Your task to perform on an android device: see sites visited before in the chrome app Image 0: 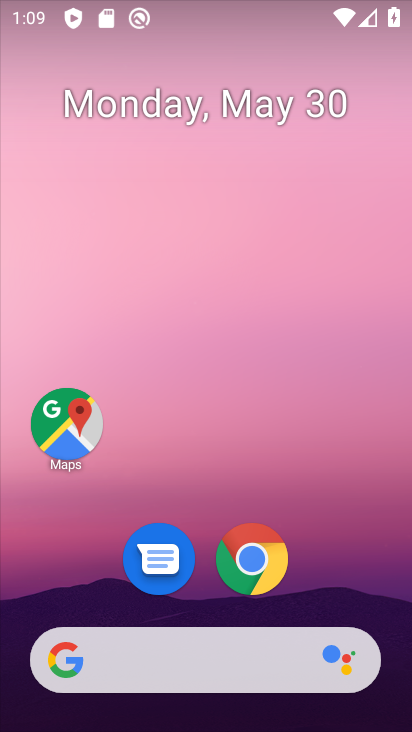
Step 0: click (268, 584)
Your task to perform on an android device: see sites visited before in the chrome app Image 1: 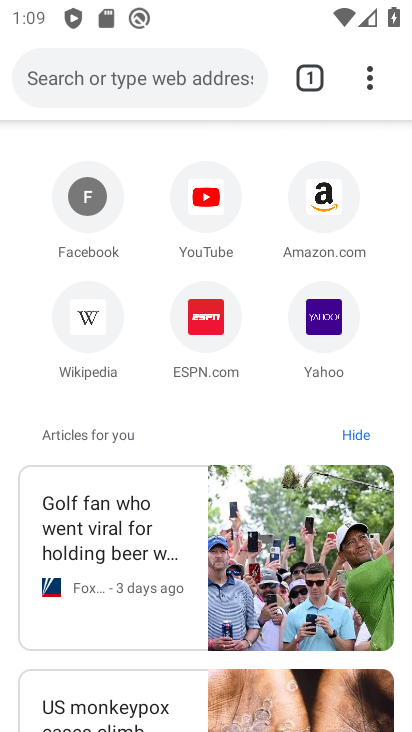
Step 1: click (371, 68)
Your task to perform on an android device: see sites visited before in the chrome app Image 2: 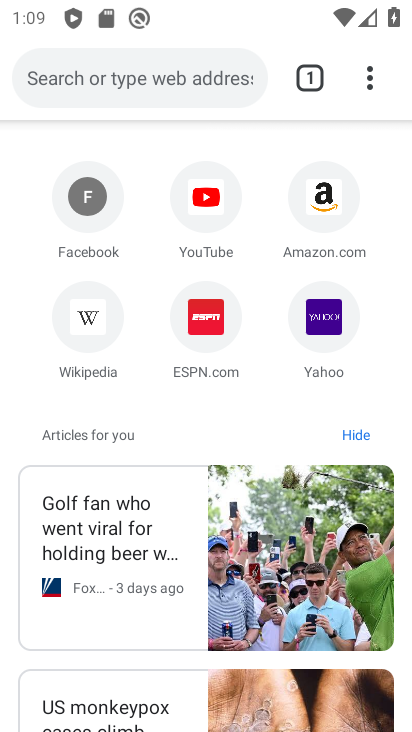
Step 2: click (364, 83)
Your task to perform on an android device: see sites visited before in the chrome app Image 3: 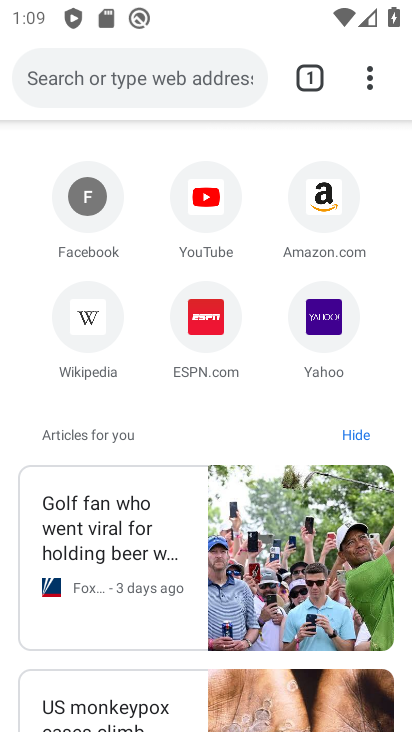
Step 3: click (369, 88)
Your task to perform on an android device: see sites visited before in the chrome app Image 4: 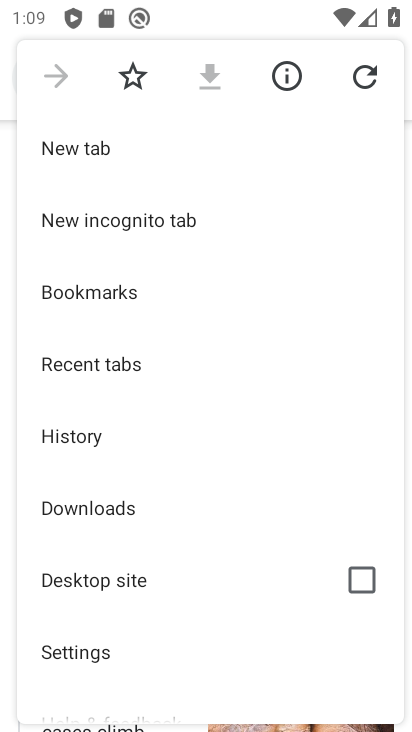
Step 4: click (114, 434)
Your task to perform on an android device: see sites visited before in the chrome app Image 5: 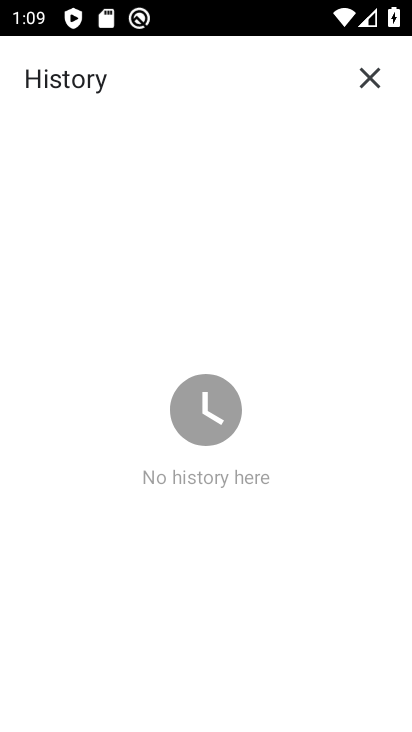
Step 5: task complete